Your task to perform on an android device: turn pop-ups on in chrome Image 0: 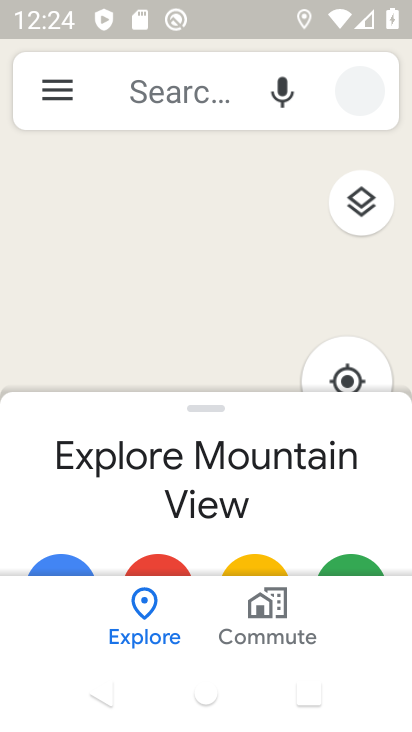
Step 0: press home button
Your task to perform on an android device: turn pop-ups on in chrome Image 1: 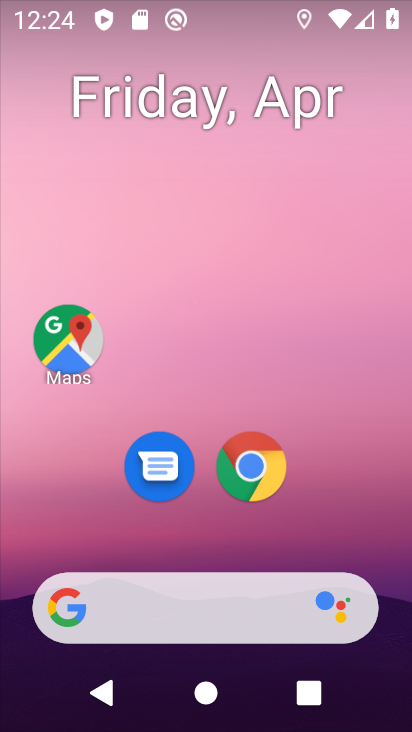
Step 1: drag from (378, 531) to (348, 136)
Your task to perform on an android device: turn pop-ups on in chrome Image 2: 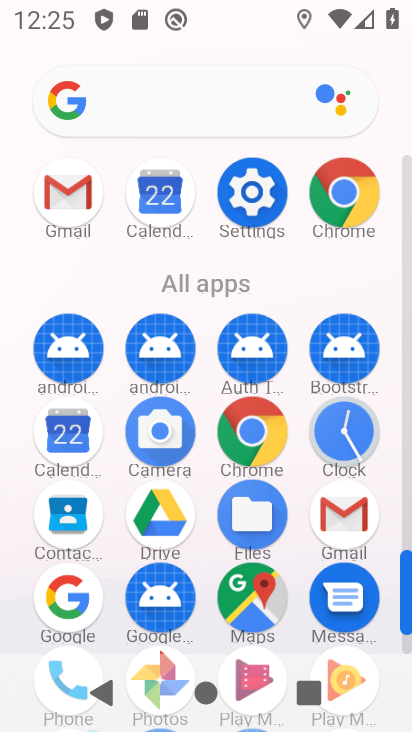
Step 2: click (333, 195)
Your task to perform on an android device: turn pop-ups on in chrome Image 3: 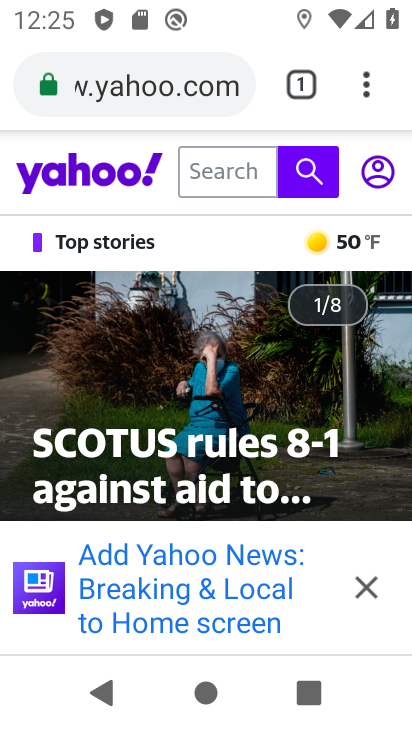
Step 3: drag from (361, 102) to (187, 515)
Your task to perform on an android device: turn pop-ups on in chrome Image 4: 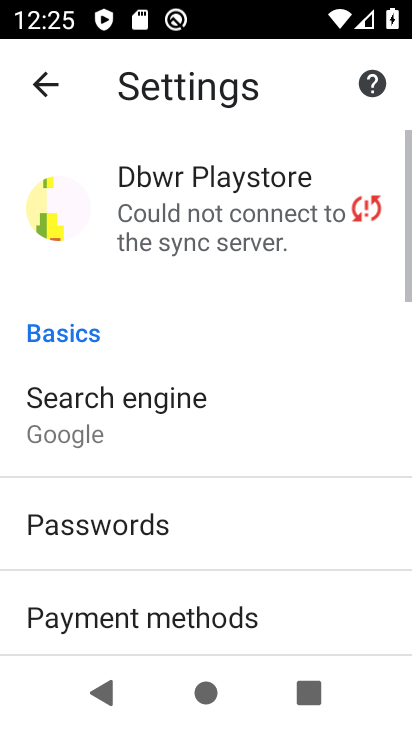
Step 4: drag from (300, 619) to (324, 256)
Your task to perform on an android device: turn pop-ups on in chrome Image 5: 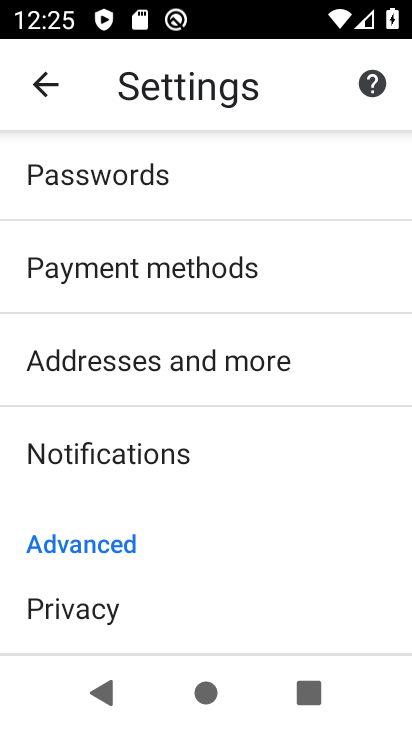
Step 5: drag from (320, 584) to (322, 285)
Your task to perform on an android device: turn pop-ups on in chrome Image 6: 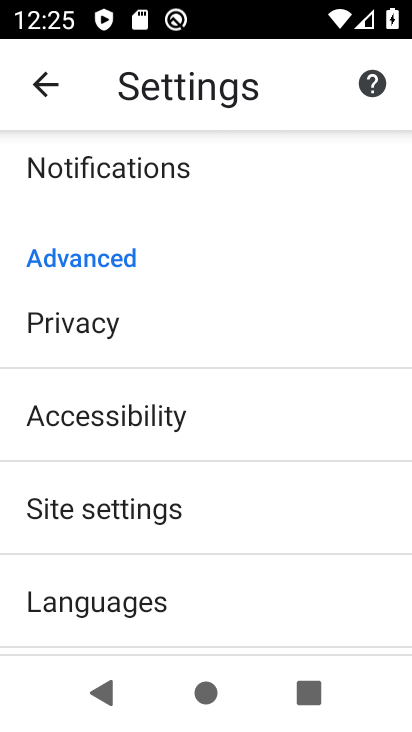
Step 6: click (238, 506)
Your task to perform on an android device: turn pop-ups on in chrome Image 7: 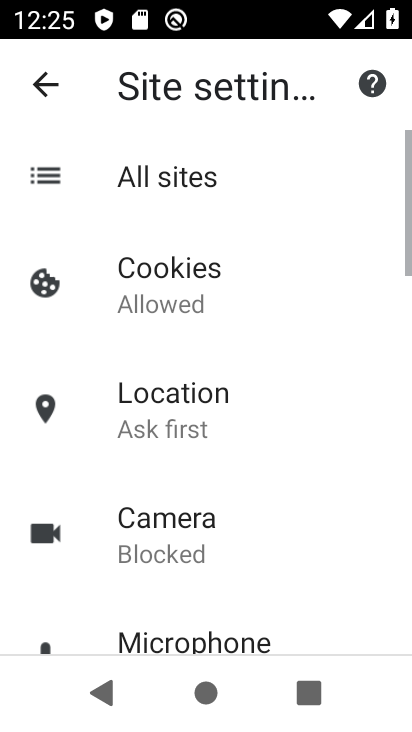
Step 7: drag from (310, 570) to (318, 252)
Your task to perform on an android device: turn pop-ups on in chrome Image 8: 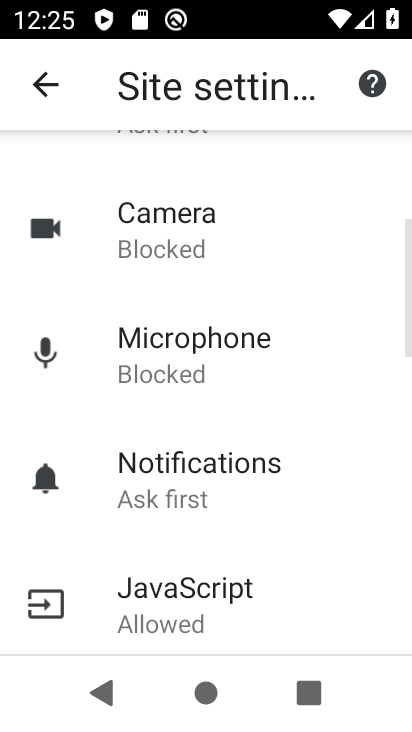
Step 8: drag from (312, 590) to (319, 294)
Your task to perform on an android device: turn pop-ups on in chrome Image 9: 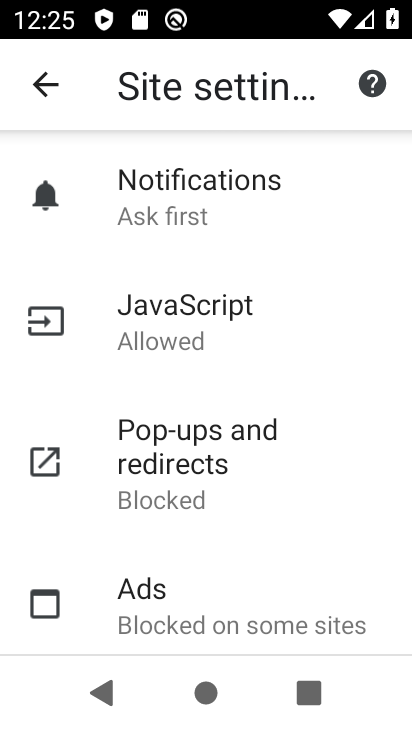
Step 9: click (214, 440)
Your task to perform on an android device: turn pop-ups on in chrome Image 10: 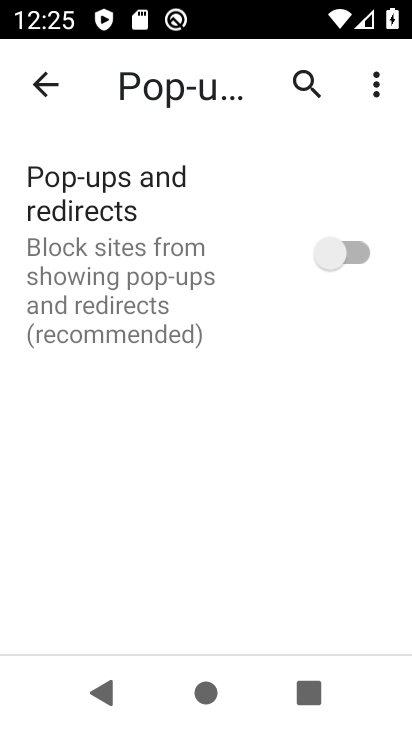
Step 10: click (347, 259)
Your task to perform on an android device: turn pop-ups on in chrome Image 11: 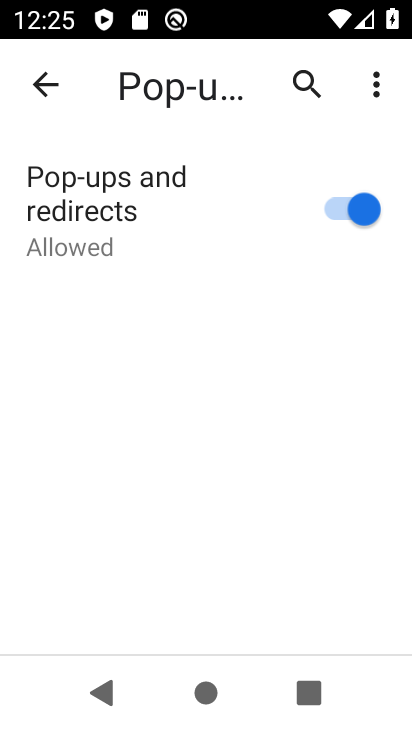
Step 11: task complete